Your task to perform on an android device: Is it going to rain today? Image 0: 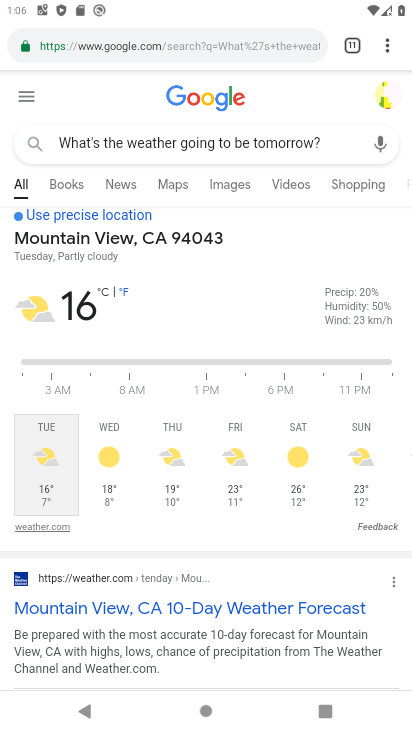
Step 0: click (376, 50)
Your task to perform on an android device: Is it going to rain today? Image 1: 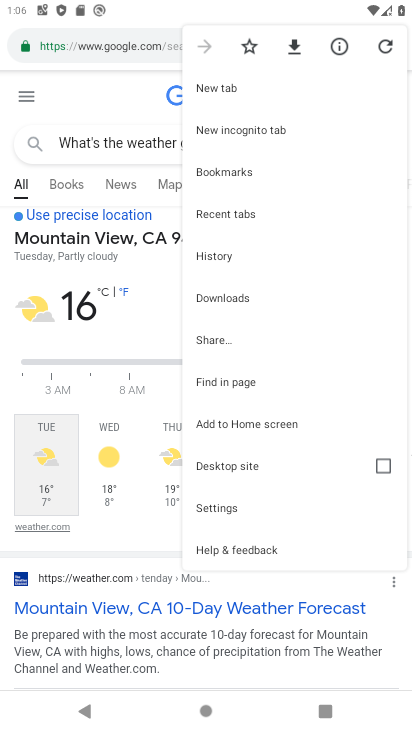
Step 1: click (236, 77)
Your task to perform on an android device: Is it going to rain today? Image 2: 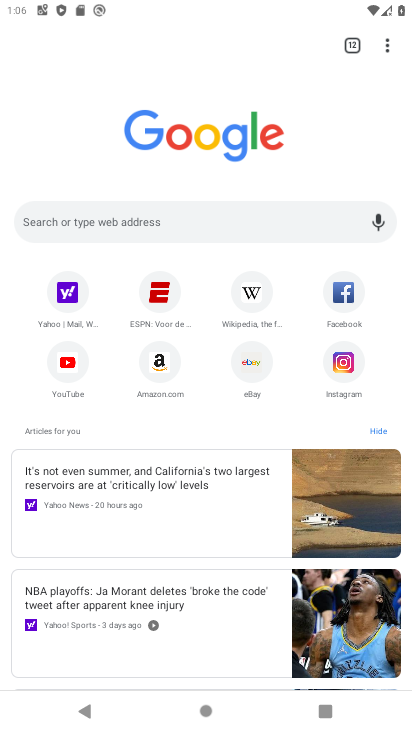
Step 2: click (123, 220)
Your task to perform on an android device: Is it going to rain today? Image 3: 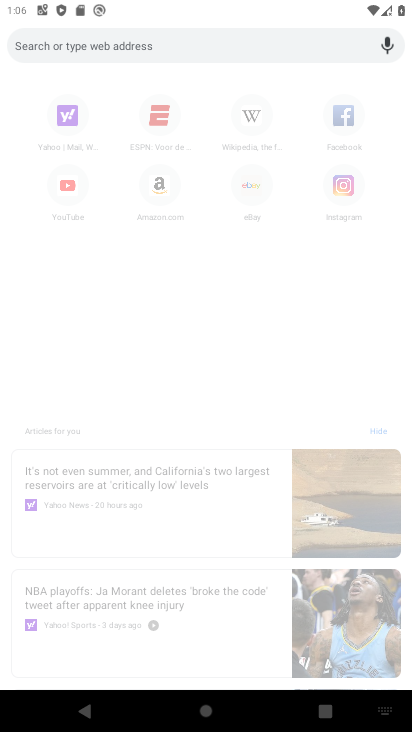
Step 3: type "Is it going to rain today?"
Your task to perform on an android device: Is it going to rain today? Image 4: 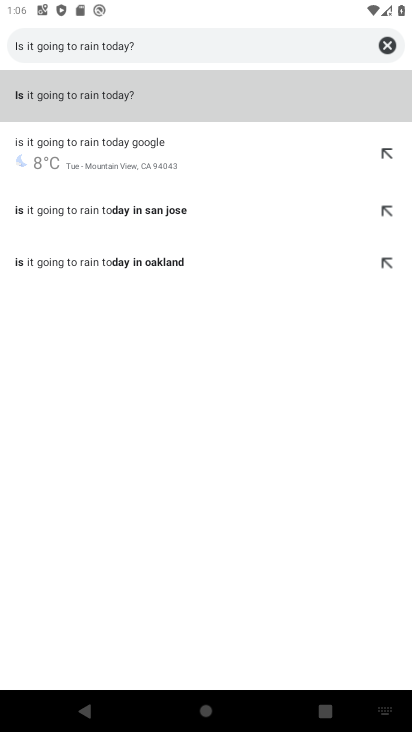
Step 4: click (115, 92)
Your task to perform on an android device: Is it going to rain today? Image 5: 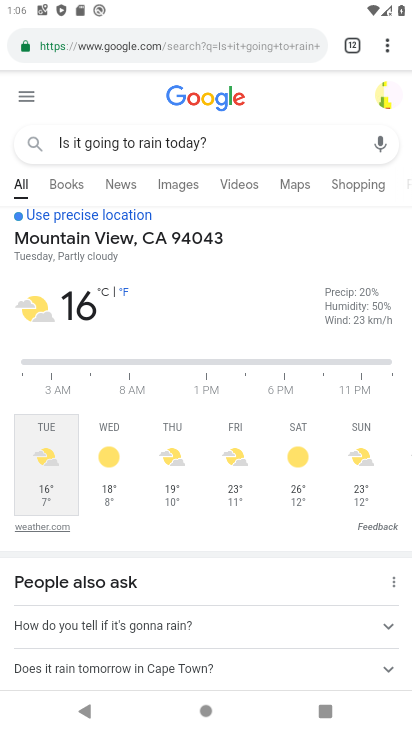
Step 5: task complete